Your task to perform on an android device: turn pop-ups on in chrome Image 0: 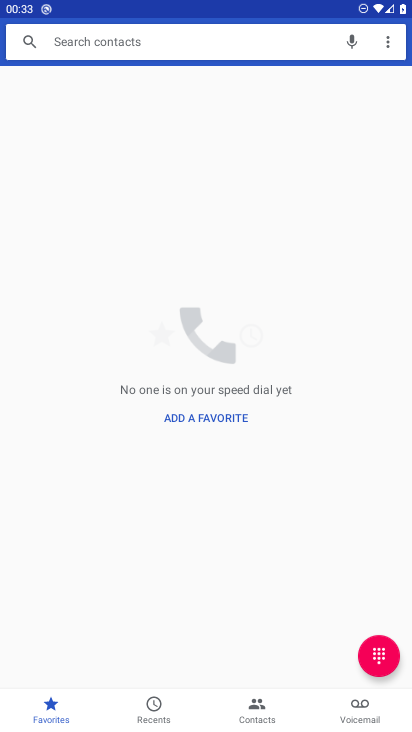
Step 0: press home button
Your task to perform on an android device: turn pop-ups on in chrome Image 1: 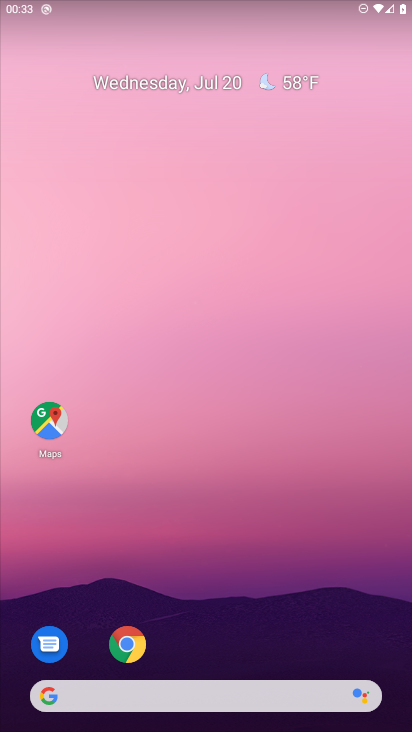
Step 1: click (125, 621)
Your task to perform on an android device: turn pop-ups on in chrome Image 2: 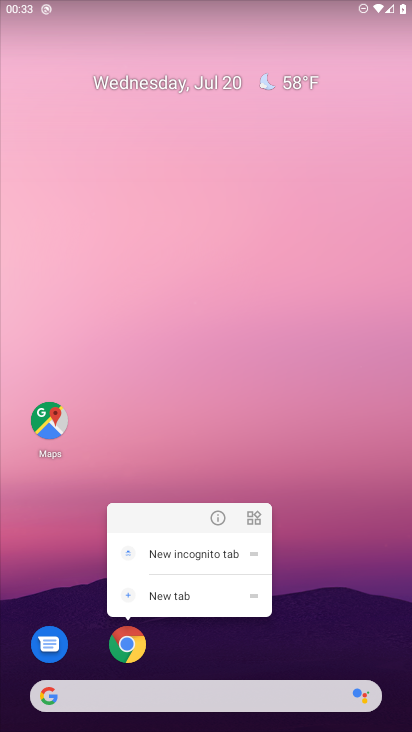
Step 2: click (117, 643)
Your task to perform on an android device: turn pop-ups on in chrome Image 3: 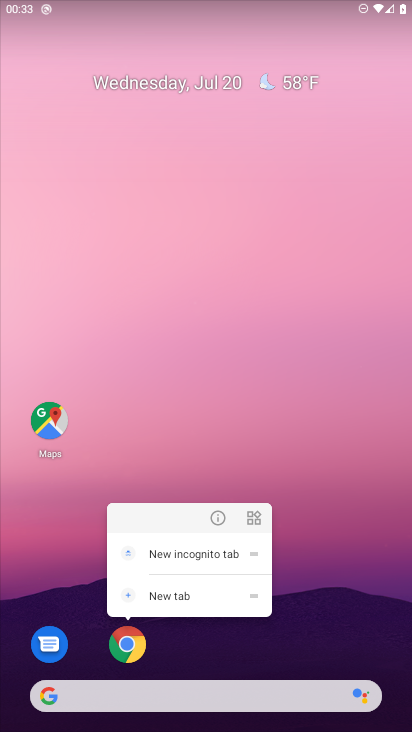
Step 3: click (117, 644)
Your task to perform on an android device: turn pop-ups on in chrome Image 4: 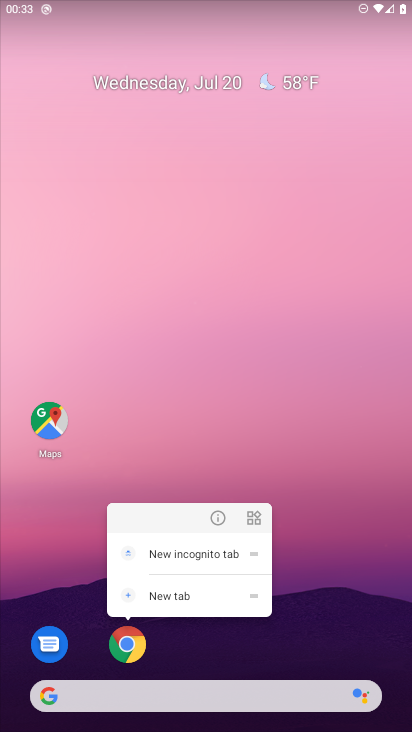
Step 4: click (119, 650)
Your task to perform on an android device: turn pop-ups on in chrome Image 5: 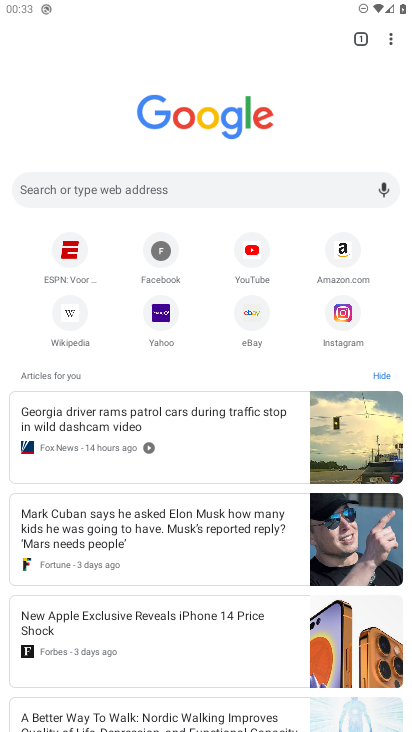
Step 5: click (387, 37)
Your task to perform on an android device: turn pop-ups on in chrome Image 6: 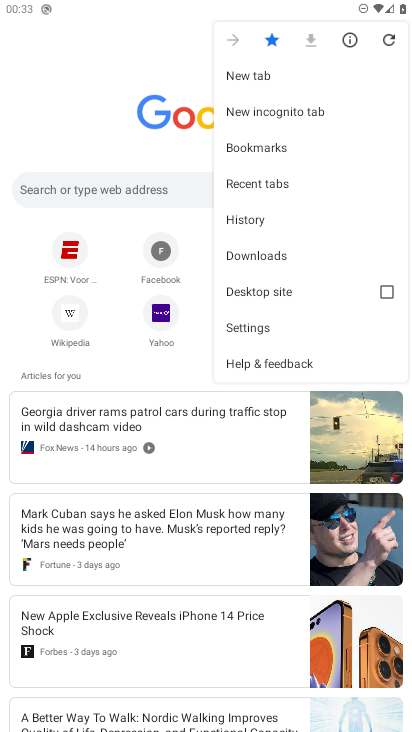
Step 6: click (253, 327)
Your task to perform on an android device: turn pop-ups on in chrome Image 7: 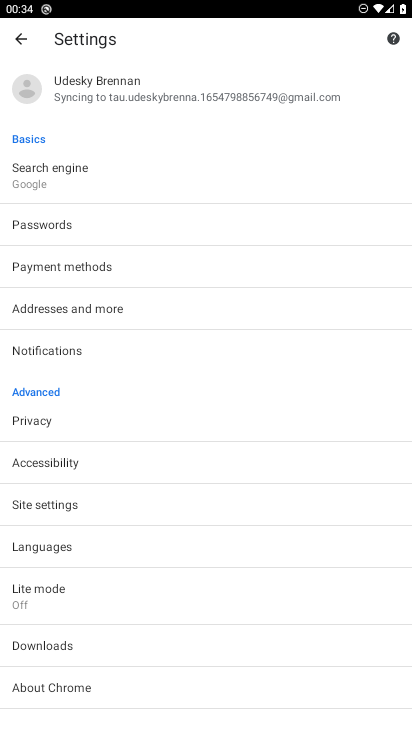
Step 7: click (55, 505)
Your task to perform on an android device: turn pop-ups on in chrome Image 8: 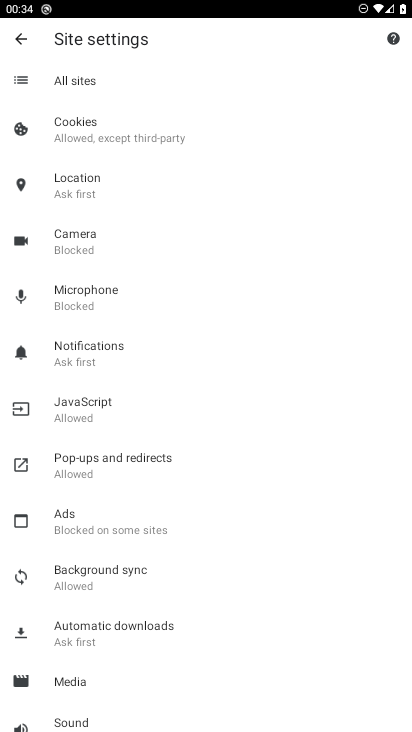
Step 8: click (130, 470)
Your task to perform on an android device: turn pop-ups on in chrome Image 9: 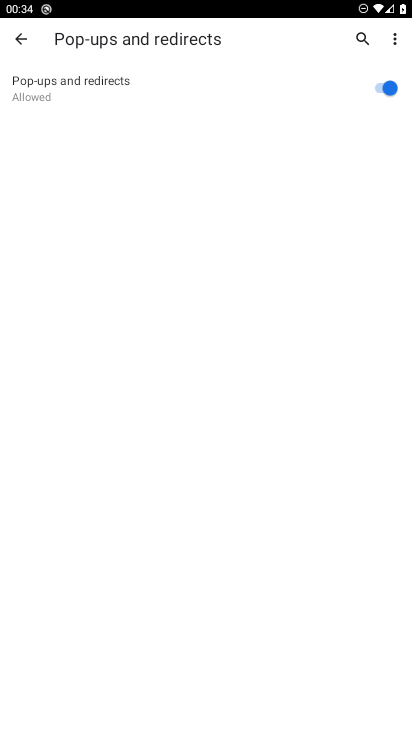
Step 9: task complete